Your task to perform on an android device: add a contact Image 0: 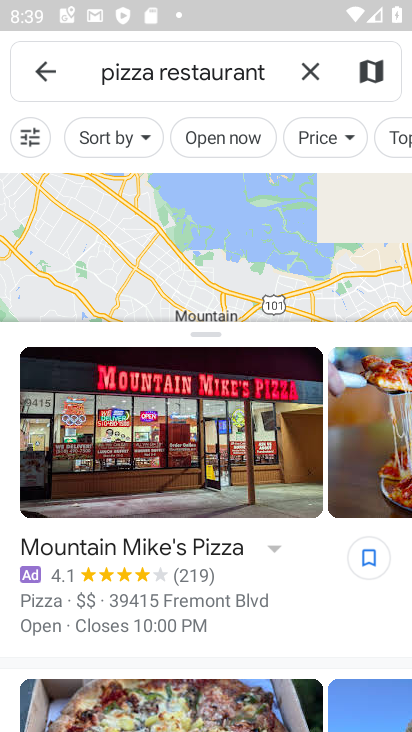
Step 0: press home button
Your task to perform on an android device: add a contact Image 1: 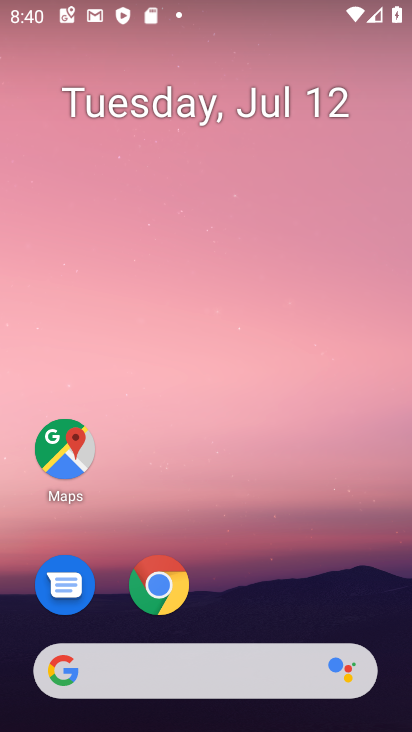
Step 1: drag from (257, 560) to (311, 0)
Your task to perform on an android device: add a contact Image 2: 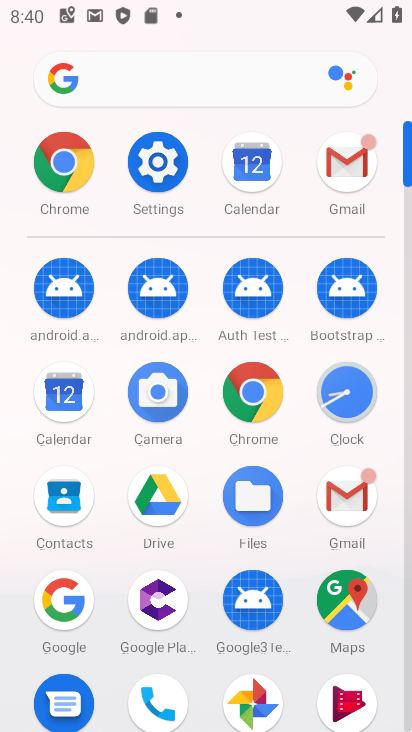
Step 2: click (64, 492)
Your task to perform on an android device: add a contact Image 3: 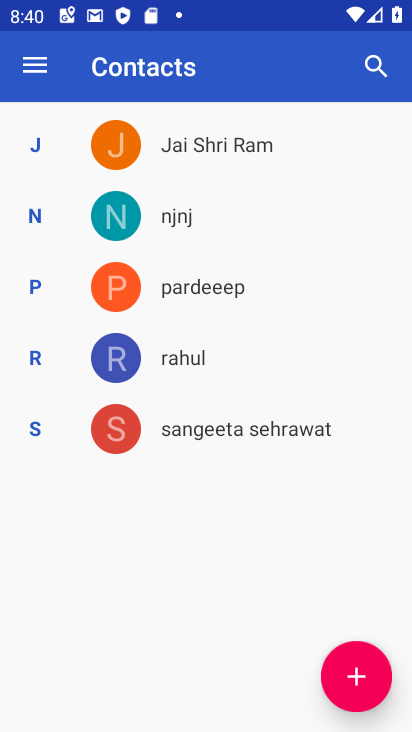
Step 3: click (344, 667)
Your task to perform on an android device: add a contact Image 4: 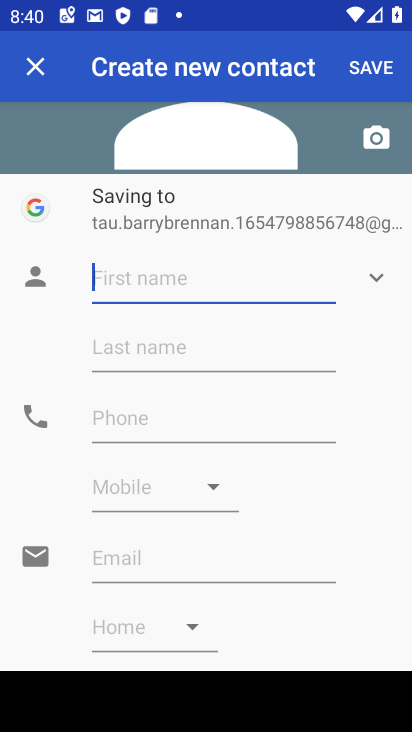
Step 4: type "Hary Krishna"
Your task to perform on an android device: add a contact Image 5: 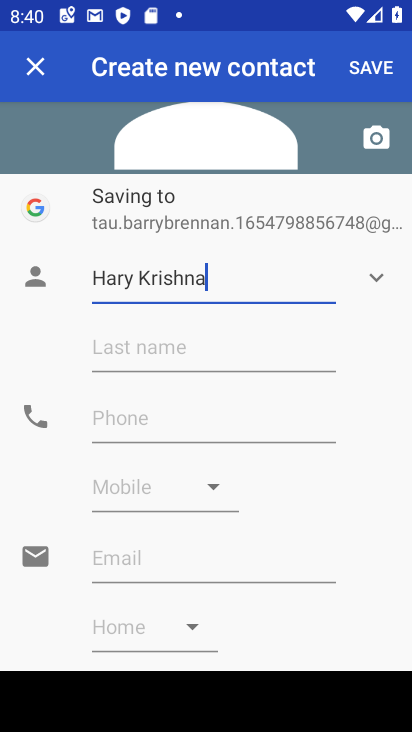
Step 5: click (178, 436)
Your task to perform on an android device: add a contact Image 6: 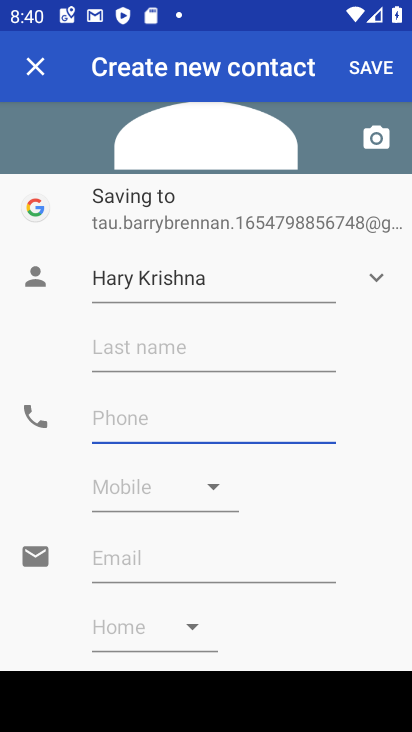
Step 6: type "919191919191"
Your task to perform on an android device: add a contact Image 7: 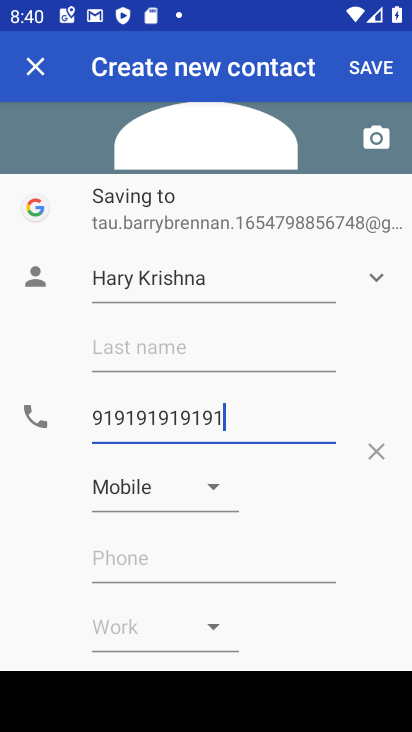
Step 7: click (385, 71)
Your task to perform on an android device: add a contact Image 8: 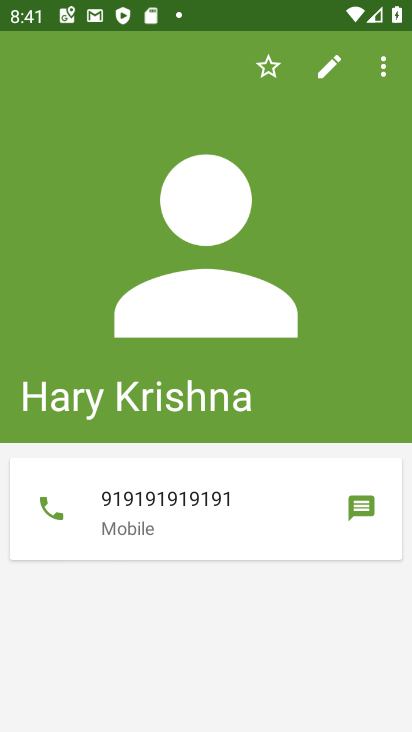
Step 8: task complete